Your task to perform on an android device: turn off smart reply in the gmail app Image 0: 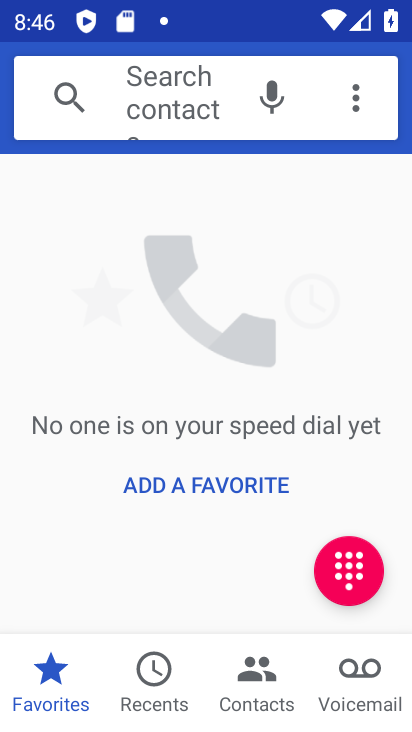
Step 0: press home button
Your task to perform on an android device: turn off smart reply in the gmail app Image 1: 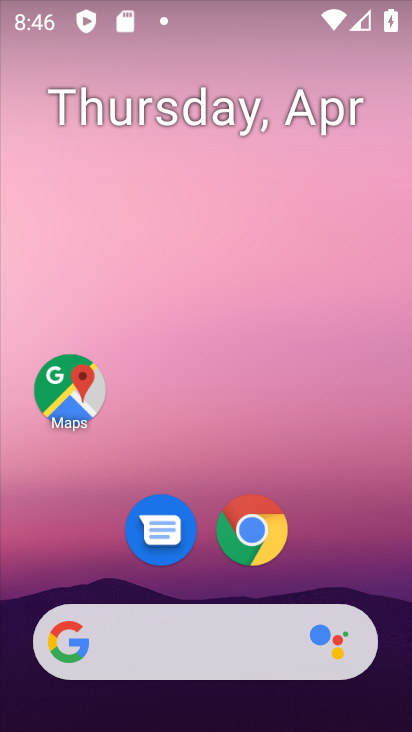
Step 1: drag from (381, 580) to (267, 96)
Your task to perform on an android device: turn off smart reply in the gmail app Image 2: 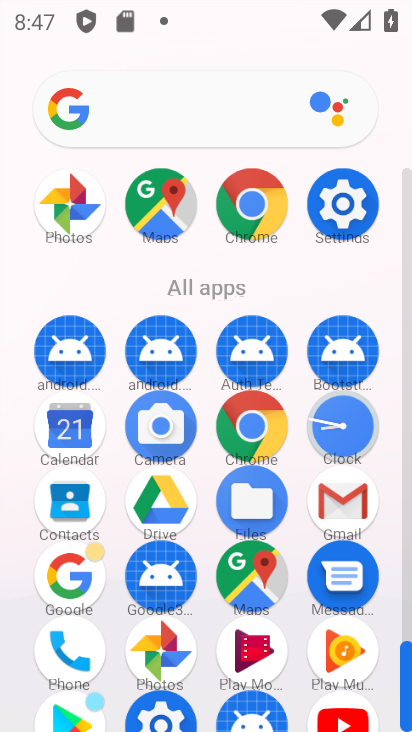
Step 2: click (345, 513)
Your task to perform on an android device: turn off smart reply in the gmail app Image 3: 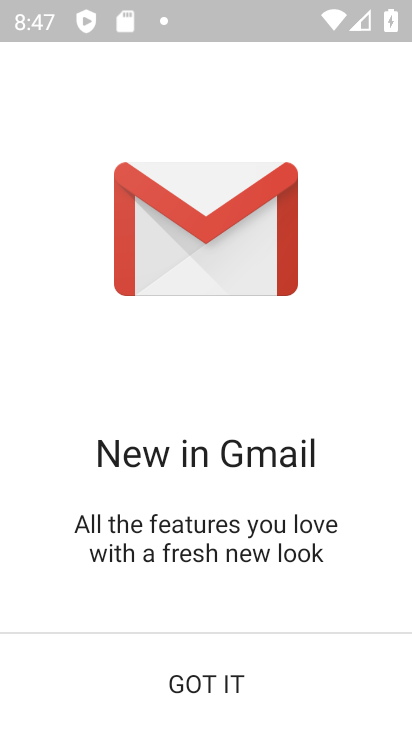
Step 3: click (195, 696)
Your task to perform on an android device: turn off smart reply in the gmail app Image 4: 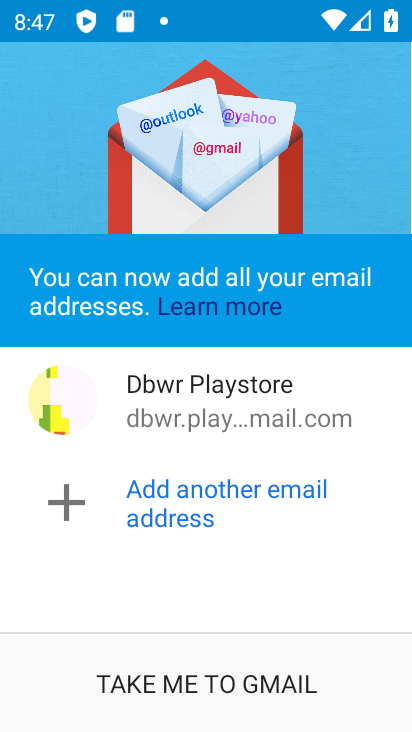
Step 4: click (195, 696)
Your task to perform on an android device: turn off smart reply in the gmail app Image 5: 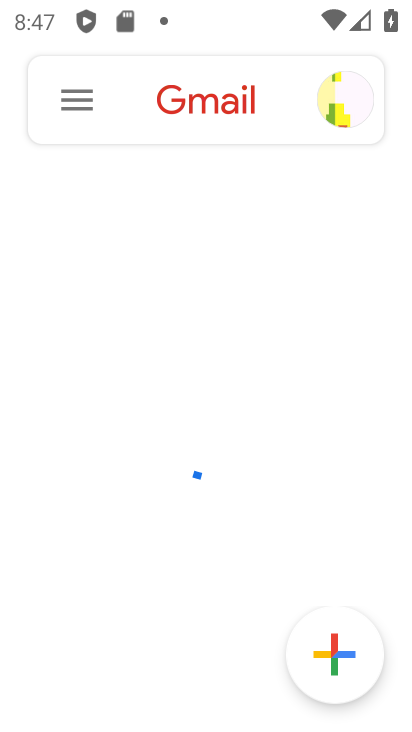
Step 5: click (77, 100)
Your task to perform on an android device: turn off smart reply in the gmail app Image 6: 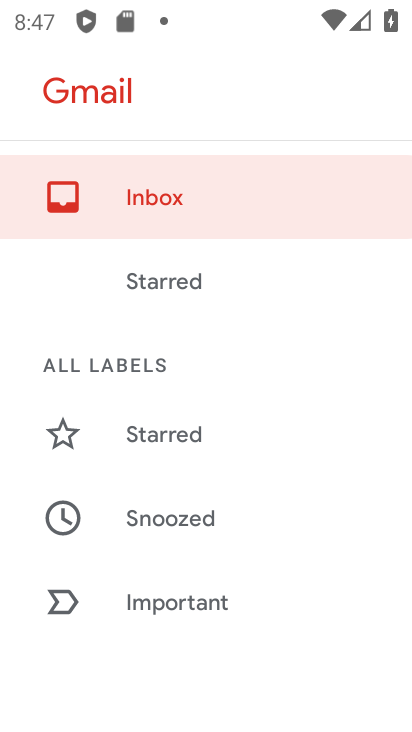
Step 6: drag from (140, 647) to (165, 143)
Your task to perform on an android device: turn off smart reply in the gmail app Image 7: 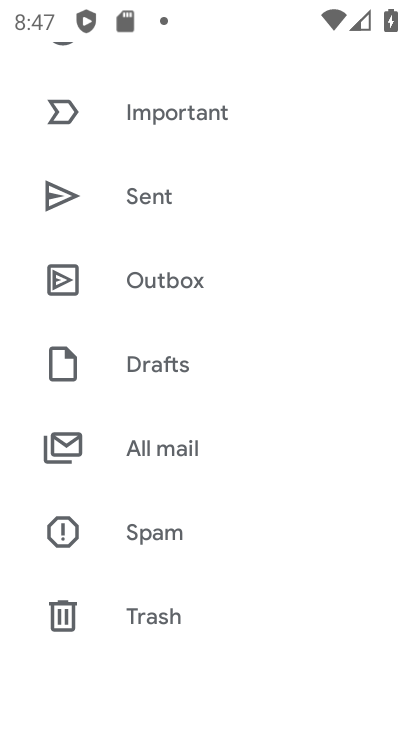
Step 7: drag from (176, 613) to (258, 186)
Your task to perform on an android device: turn off smart reply in the gmail app Image 8: 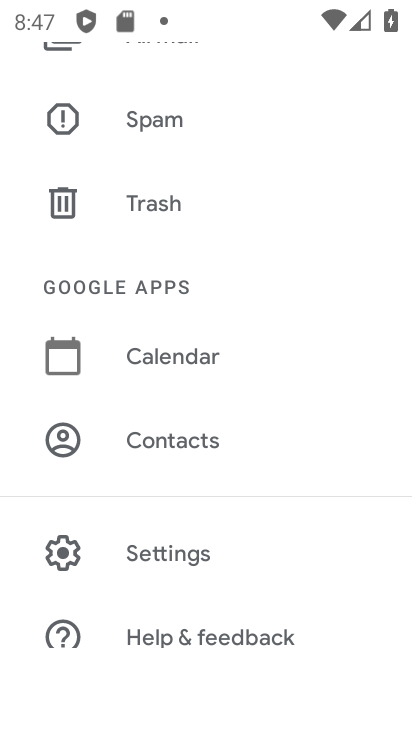
Step 8: click (203, 551)
Your task to perform on an android device: turn off smart reply in the gmail app Image 9: 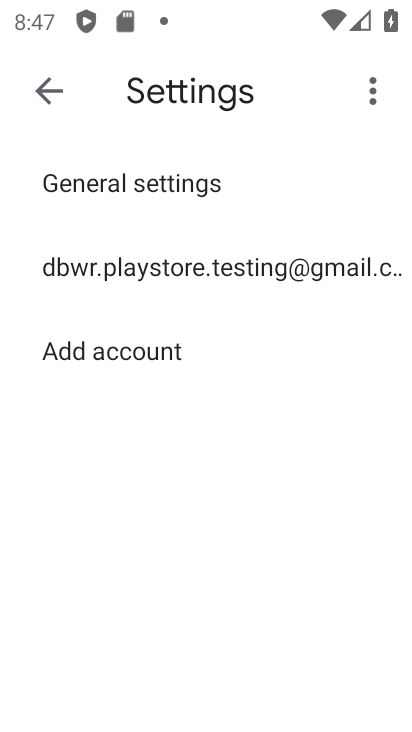
Step 9: click (149, 253)
Your task to perform on an android device: turn off smart reply in the gmail app Image 10: 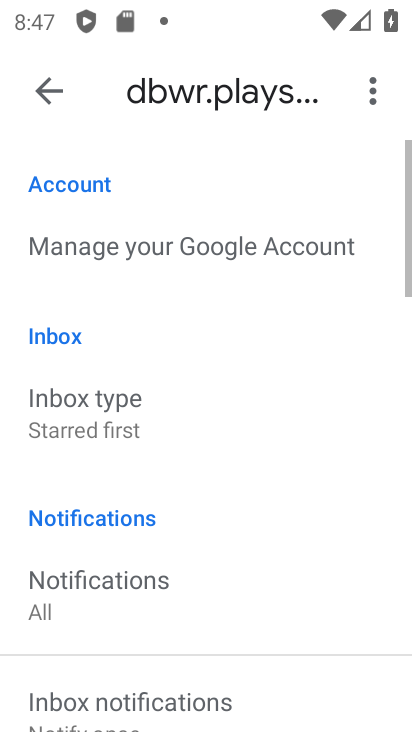
Step 10: drag from (171, 621) to (242, 90)
Your task to perform on an android device: turn off smart reply in the gmail app Image 11: 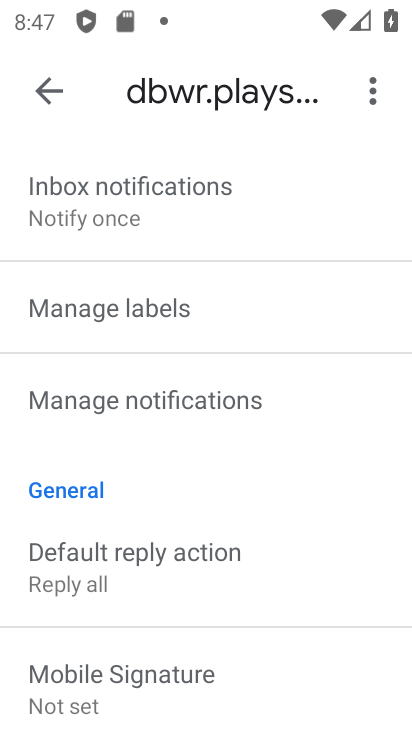
Step 11: drag from (157, 663) to (221, 153)
Your task to perform on an android device: turn off smart reply in the gmail app Image 12: 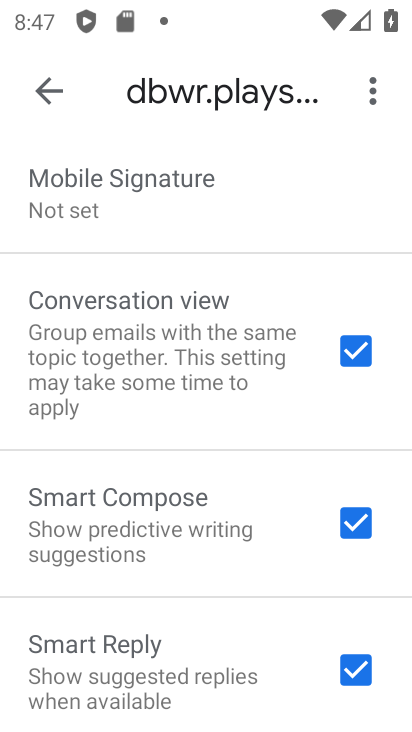
Step 12: click (186, 653)
Your task to perform on an android device: turn off smart reply in the gmail app Image 13: 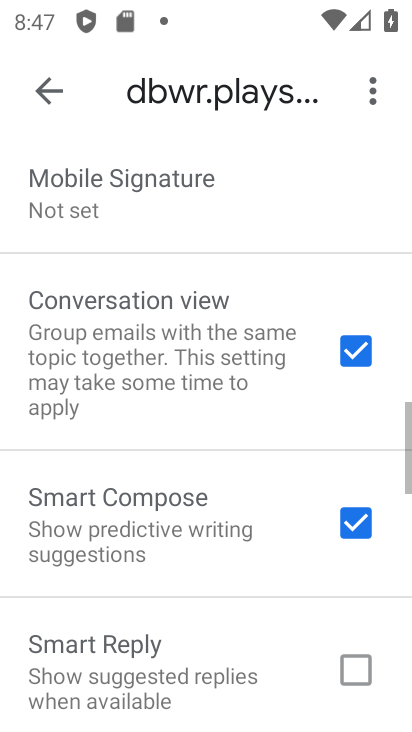
Step 13: task complete